Your task to perform on an android device: find snoozed emails in the gmail app Image 0: 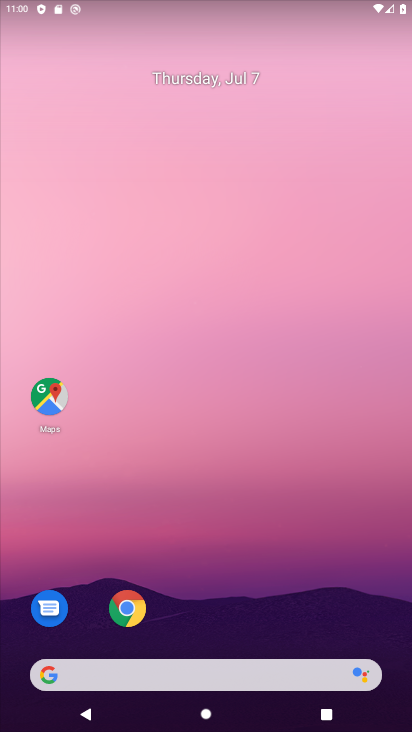
Step 0: drag from (81, 547) to (305, 33)
Your task to perform on an android device: find snoozed emails in the gmail app Image 1: 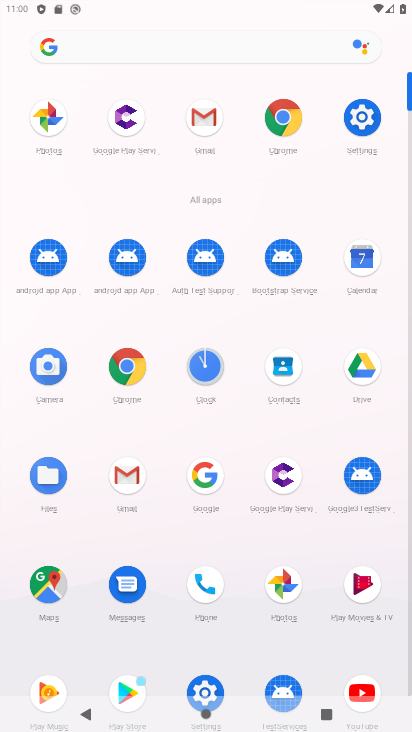
Step 1: click (208, 128)
Your task to perform on an android device: find snoozed emails in the gmail app Image 2: 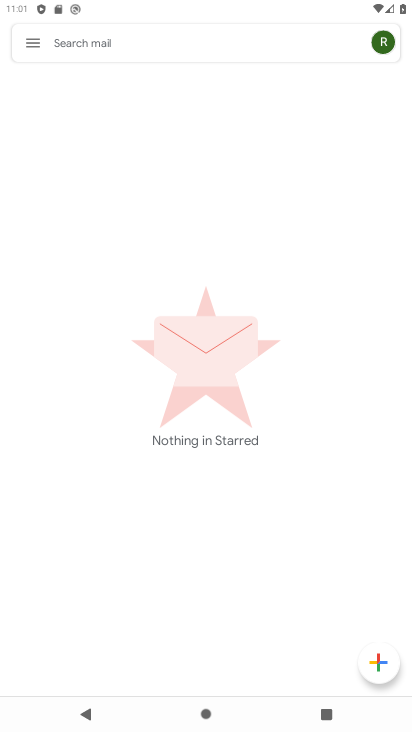
Step 2: click (26, 48)
Your task to perform on an android device: find snoozed emails in the gmail app Image 3: 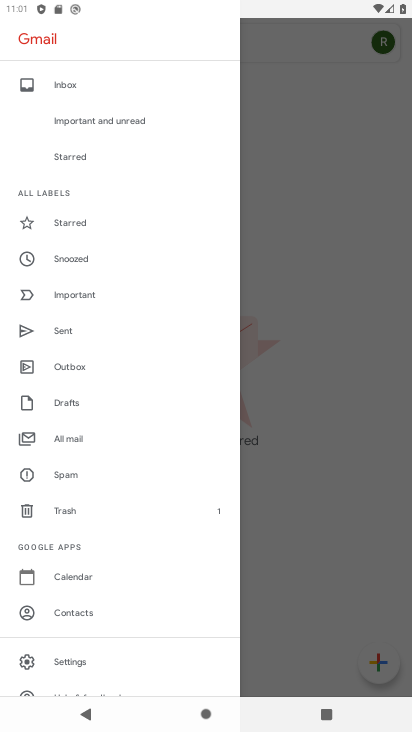
Step 3: click (87, 260)
Your task to perform on an android device: find snoozed emails in the gmail app Image 4: 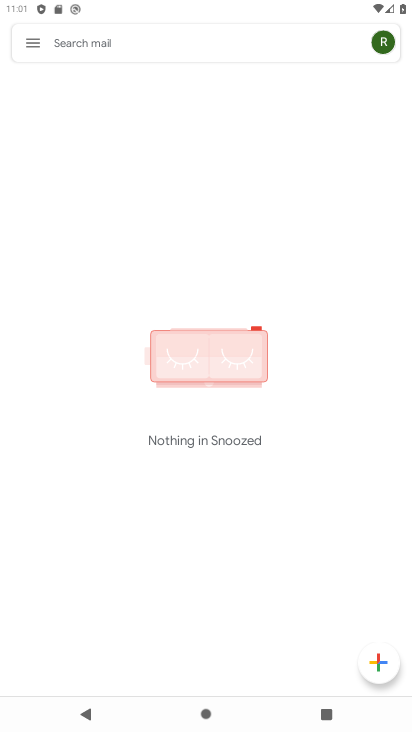
Step 4: task complete